Your task to perform on an android device: refresh tabs in the chrome app Image 0: 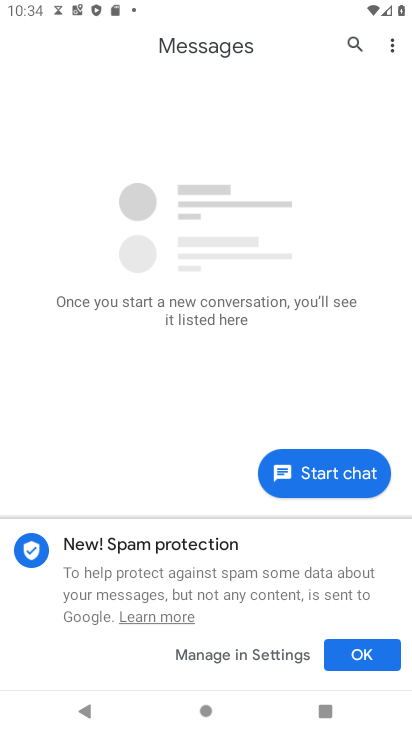
Step 0: press home button
Your task to perform on an android device: refresh tabs in the chrome app Image 1: 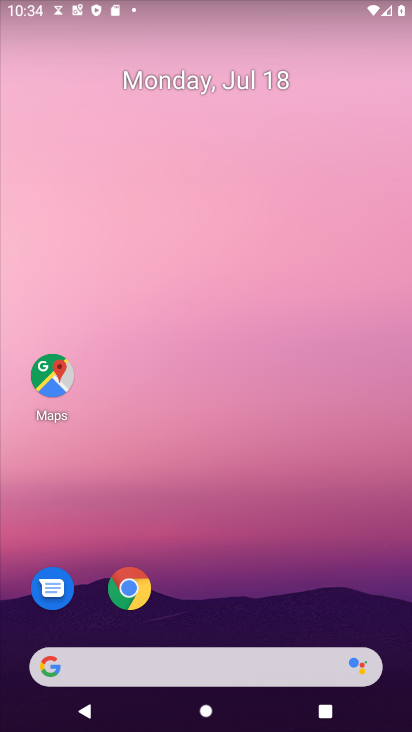
Step 1: drag from (219, 695) to (219, 107)
Your task to perform on an android device: refresh tabs in the chrome app Image 2: 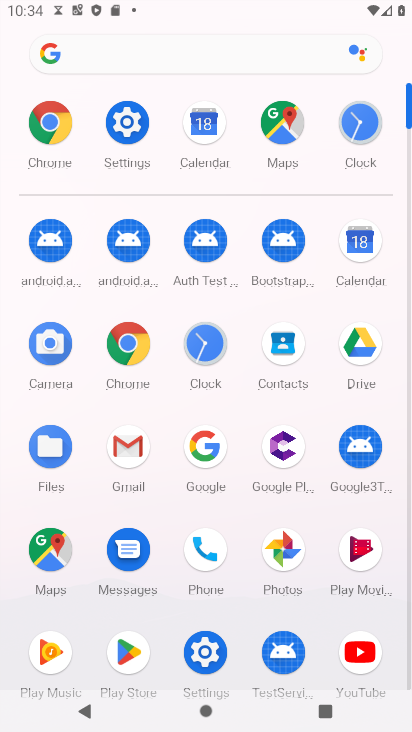
Step 2: click (125, 354)
Your task to perform on an android device: refresh tabs in the chrome app Image 3: 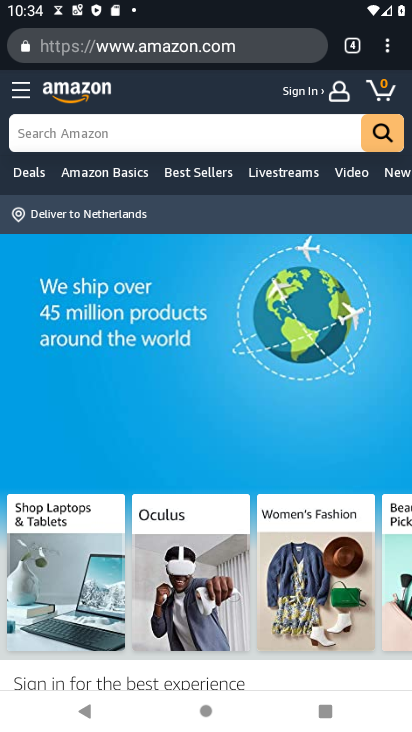
Step 3: click (387, 56)
Your task to perform on an android device: refresh tabs in the chrome app Image 4: 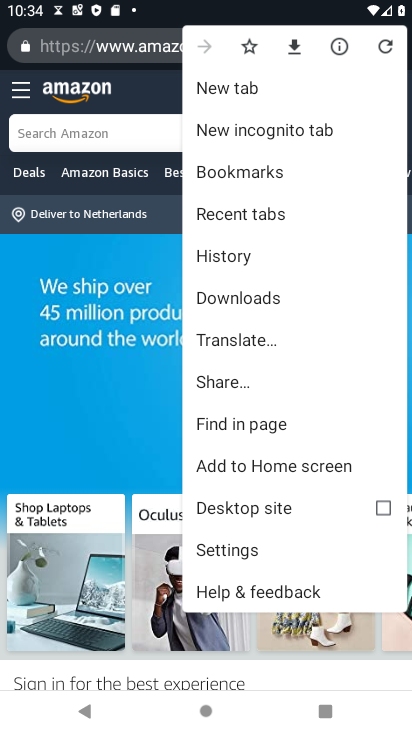
Step 4: click (385, 44)
Your task to perform on an android device: refresh tabs in the chrome app Image 5: 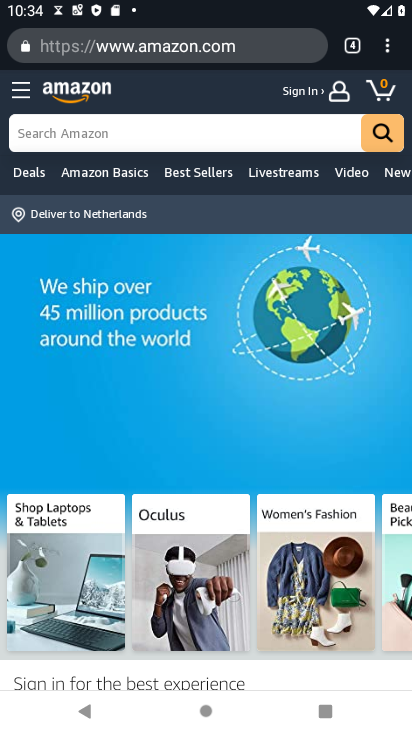
Step 5: task complete